Your task to perform on an android device: open app "Instagram" (install if not already installed), go to login, and select forgot password Image 0: 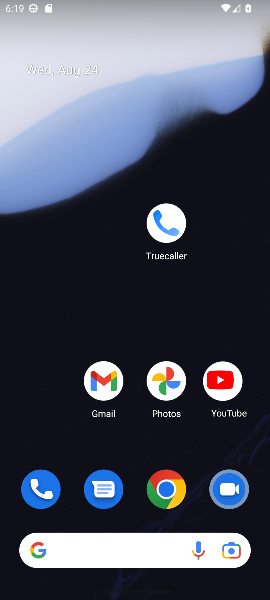
Step 0: click (128, 2)
Your task to perform on an android device: open app "Instagram" (install if not already installed), go to login, and select forgot password Image 1: 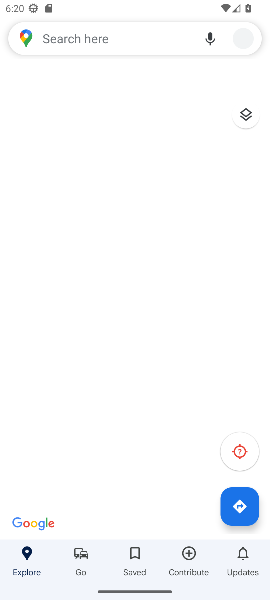
Step 1: click (104, 235)
Your task to perform on an android device: open app "Instagram" (install if not already installed), go to login, and select forgot password Image 2: 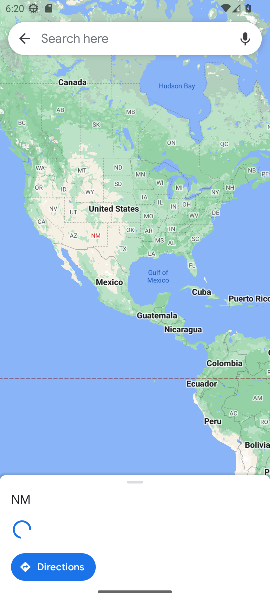
Step 2: press home button
Your task to perform on an android device: open app "Instagram" (install if not already installed), go to login, and select forgot password Image 3: 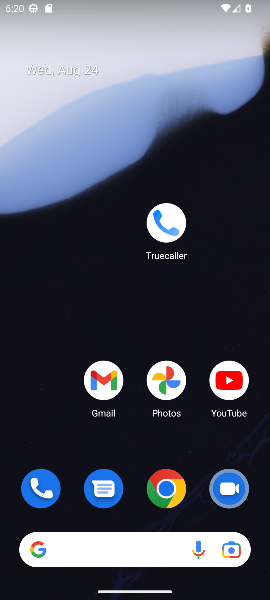
Step 3: drag from (133, 514) to (120, 78)
Your task to perform on an android device: open app "Instagram" (install if not already installed), go to login, and select forgot password Image 4: 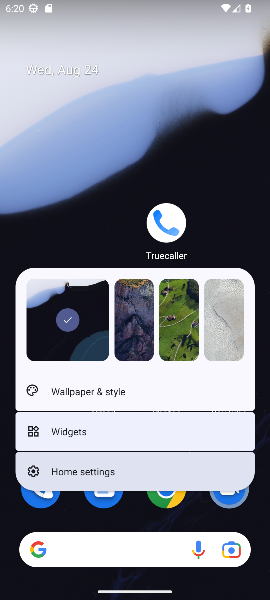
Step 4: click (152, 113)
Your task to perform on an android device: open app "Instagram" (install if not already installed), go to login, and select forgot password Image 5: 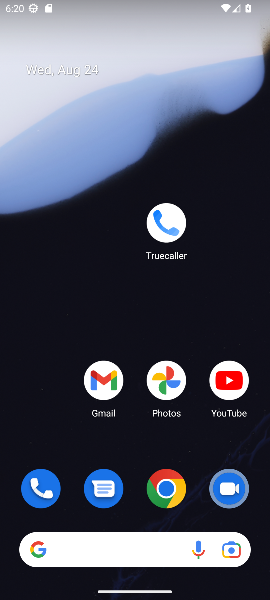
Step 5: drag from (135, 516) to (144, 132)
Your task to perform on an android device: open app "Instagram" (install if not already installed), go to login, and select forgot password Image 6: 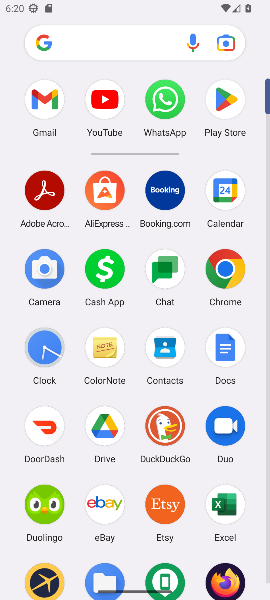
Step 6: click (221, 109)
Your task to perform on an android device: open app "Instagram" (install if not already installed), go to login, and select forgot password Image 7: 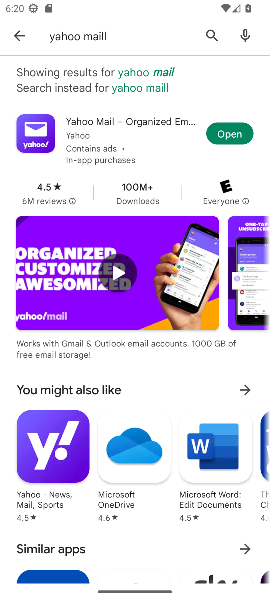
Step 7: click (216, 42)
Your task to perform on an android device: open app "Instagram" (install if not already installed), go to login, and select forgot password Image 8: 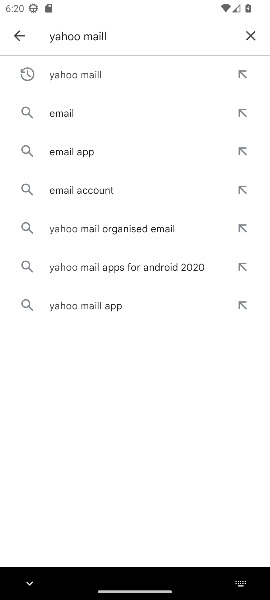
Step 8: click (249, 35)
Your task to perform on an android device: open app "Instagram" (install if not already installed), go to login, and select forgot password Image 9: 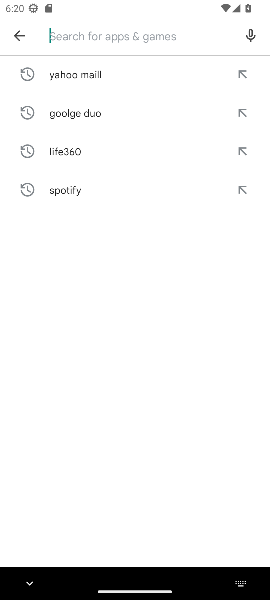
Step 9: type "instagram"
Your task to perform on an android device: open app "Instagram" (install if not already installed), go to login, and select forgot password Image 10: 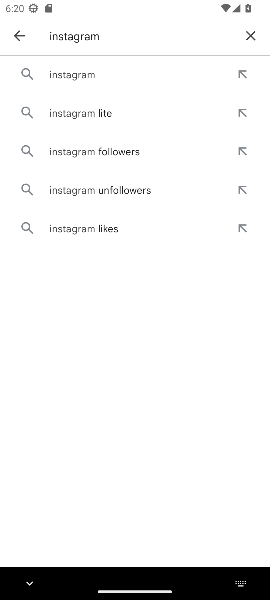
Step 10: click (135, 76)
Your task to perform on an android device: open app "Instagram" (install if not already installed), go to login, and select forgot password Image 11: 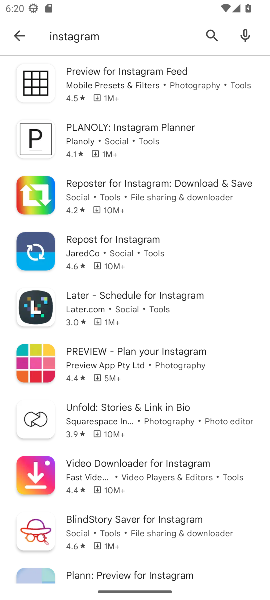
Step 11: task complete